Your task to perform on an android device: Search for pizza restaurants on Maps Image 0: 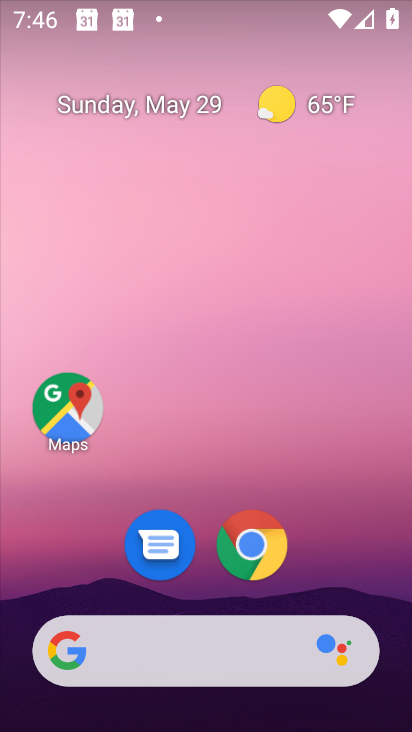
Step 0: click (64, 406)
Your task to perform on an android device: Search for pizza restaurants on Maps Image 1: 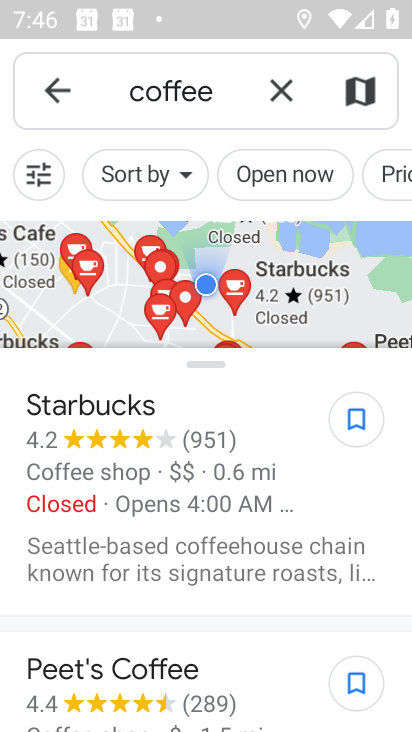
Step 1: click (275, 94)
Your task to perform on an android device: Search for pizza restaurants on Maps Image 2: 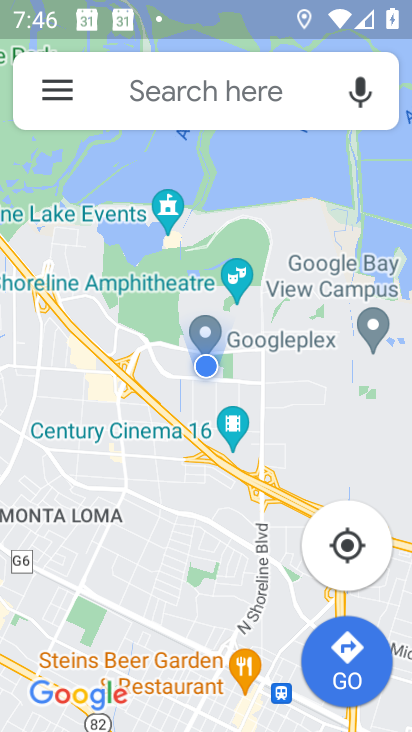
Step 2: type "pizza restaurants"
Your task to perform on an android device: Search for pizza restaurants on Maps Image 3: 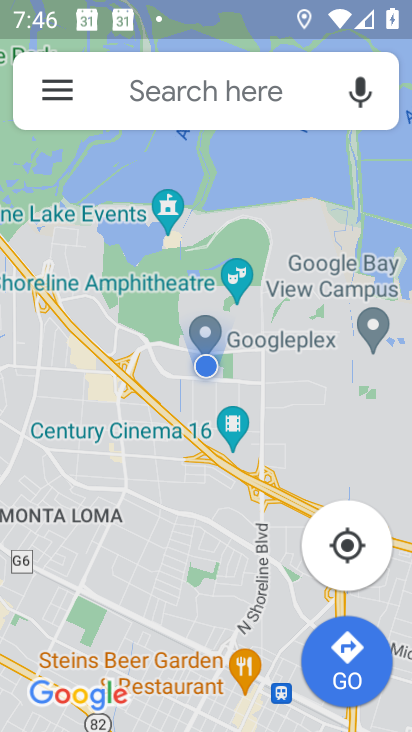
Step 3: click (174, 89)
Your task to perform on an android device: Search for pizza restaurants on Maps Image 4: 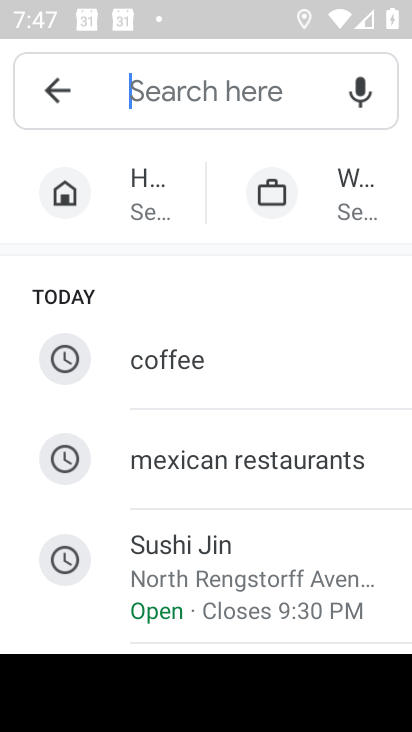
Step 4: type "Pizza restaurants"
Your task to perform on an android device: Search for pizza restaurants on Maps Image 5: 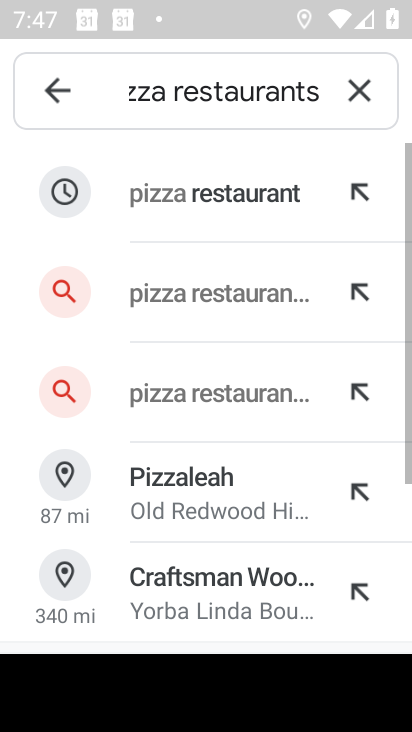
Step 5: click (220, 192)
Your task to perform on an android device: Search for pizza restaurants on Maps Image 6: 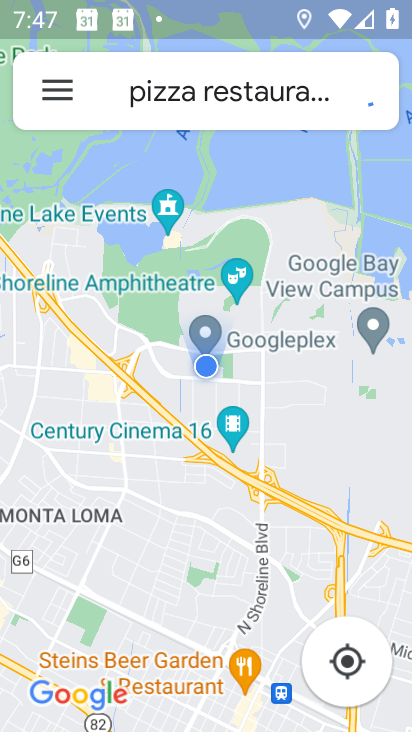
Step 6: task complete